Your task to perform on an android device: set the stopwatch Image 0: 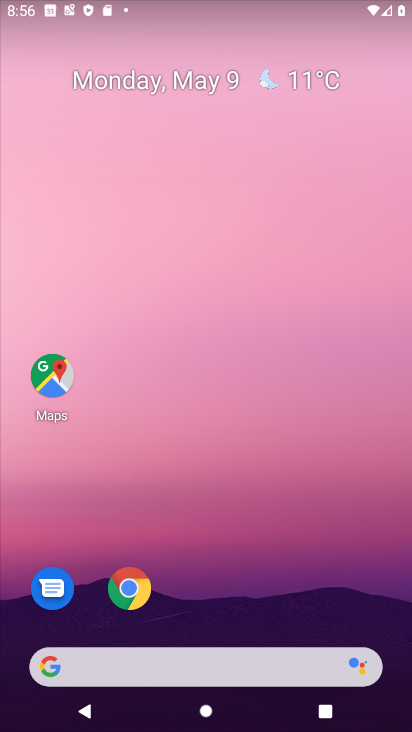
Step 0: drag from (165, 642) to (280, 26)
Your task to perform on an android device: set the stopwatch Image 1: 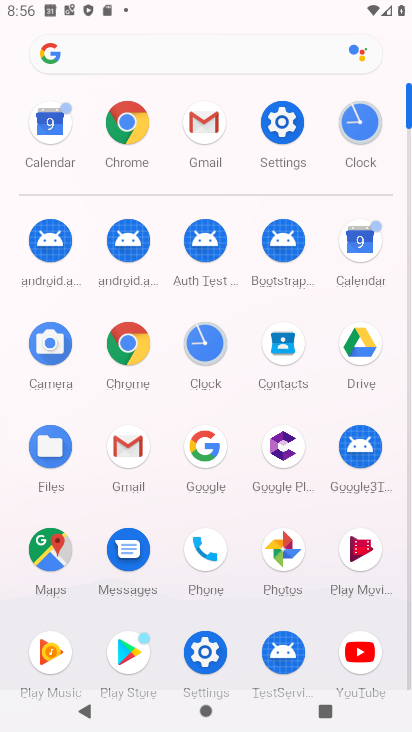
Step 1: click (202, 350)
Your task to perform on an android device: set the stopwatch Image 2: 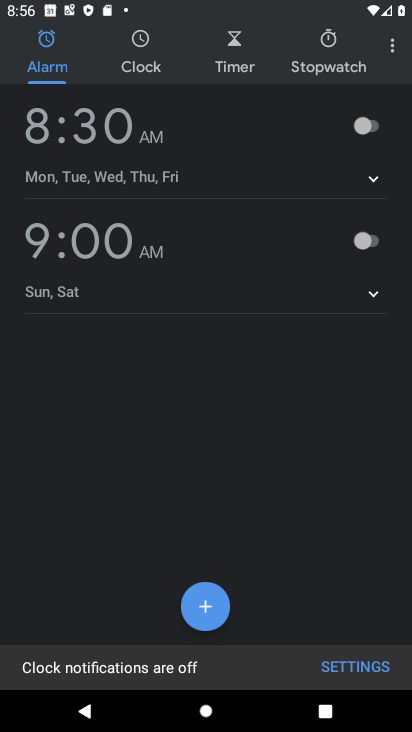
Step 2: click (308, 67)
Your task to perform on an android device: set the stopwatch Image 3: 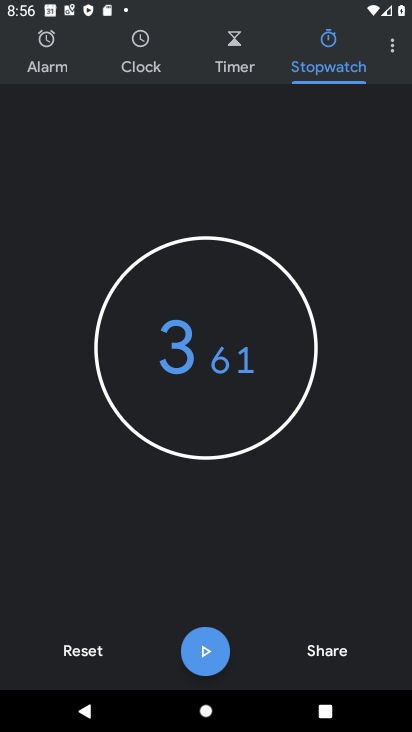
Step 3: click (78, 651)
Your task to perform on an android device: set the stopwatch Image 4: 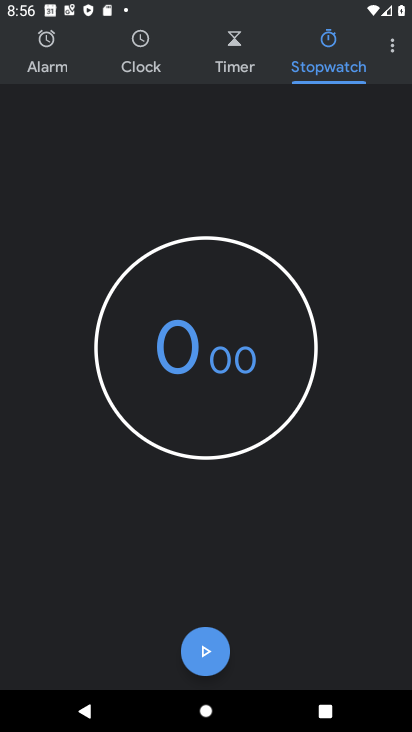
Step 4: click (218, 358)
Your task to perform on an android device: set the stopwatch Image 5: 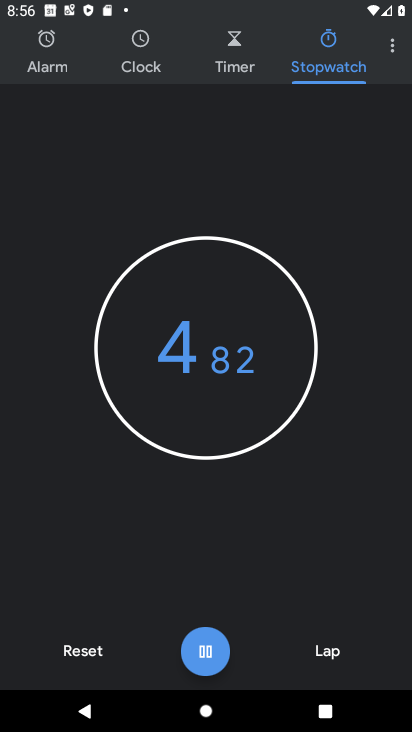
Step 5: click (219, 349)
Your task to perform on an android device: set the stopwatch Image 6: 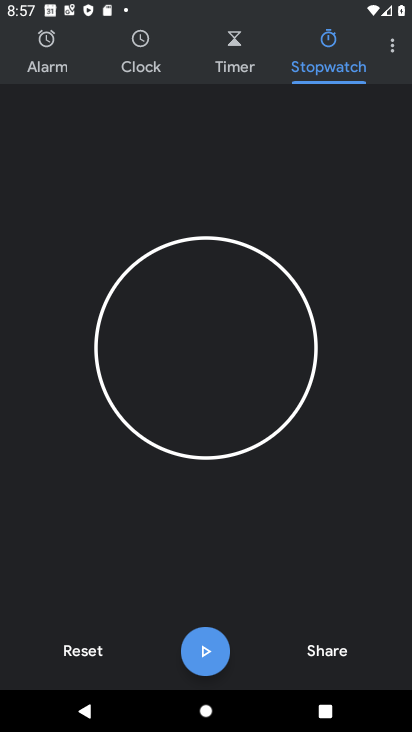
Step 6: task complete